Your task to perform on an android device: turn on wifi Image 0: 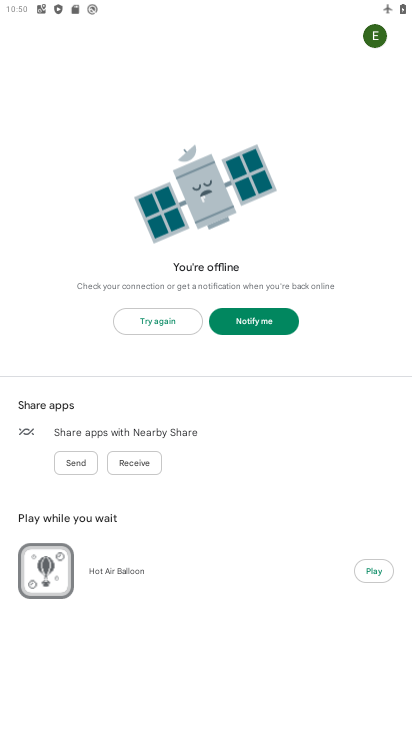
Step 0: press home button
Your task to perform on an android device: turn on wifi Image 1: 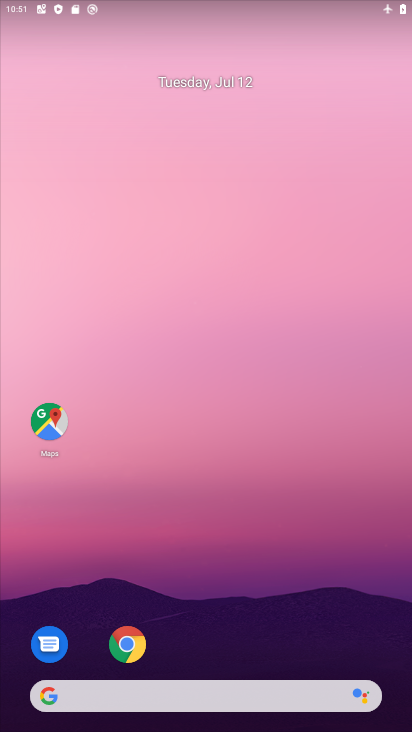
Step 1: drag from (299, 598) to (375, 16)
Your task to perform on an android device: turn on wifi Image 2: 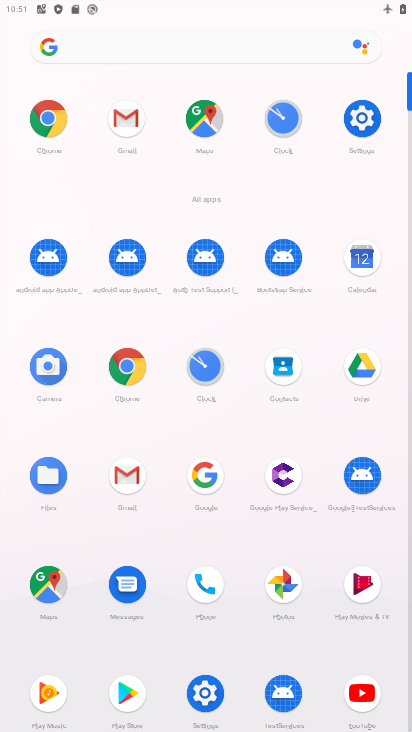
Step 2: click (372, 132)
Your task to perform on an android device: turn on wifi Image 3: 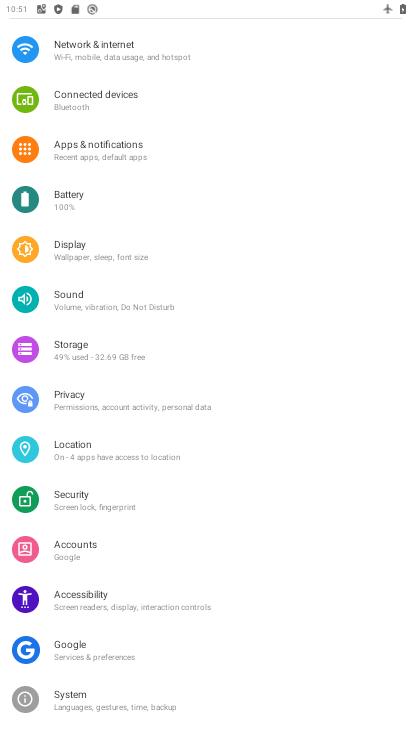
Step 3: click (122, 51)
Your task to perform on an android device: turn on wifi Image 4: 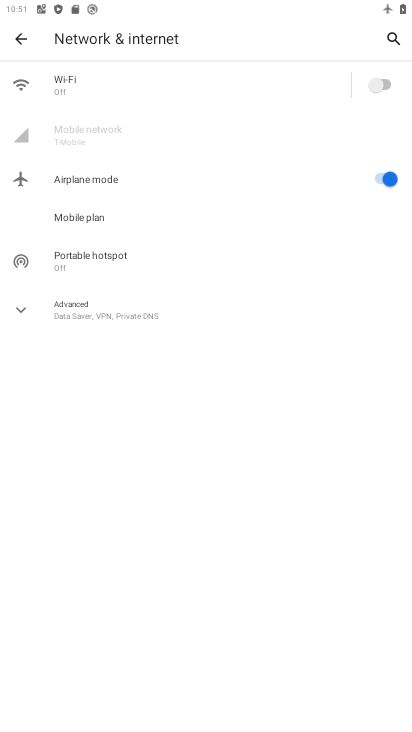
Step 4: click (381, 90)
Your task to perform on an android device: turn on wifi Image 5: 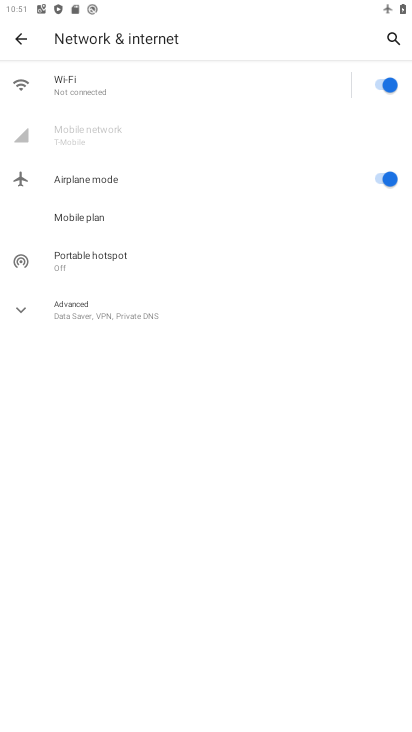
Step 5: task complete